Your task to perform on an android device: Go to Maps Image 0: 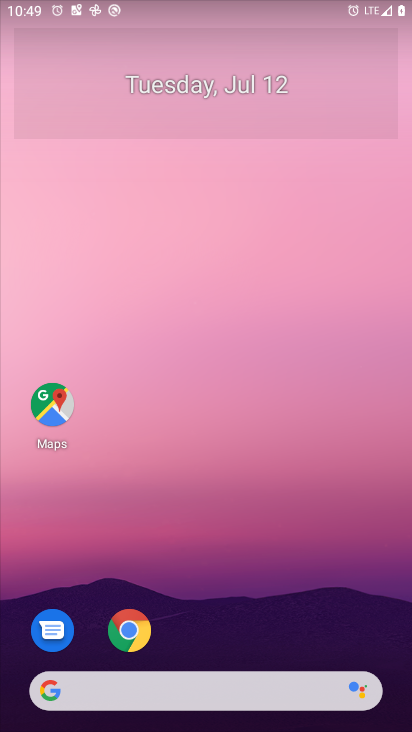
Step 0: press home button
Your task to perform on an android device: Go to Maps Image 1: 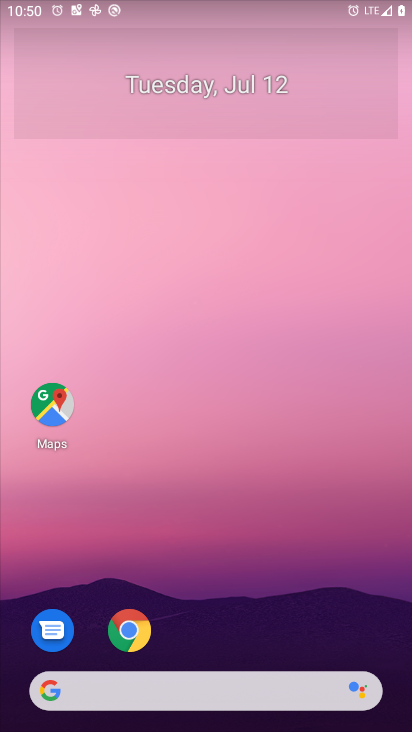
Step 1: click (41, 402)
Your task to perform on an android device: Go to Maps Image 2: 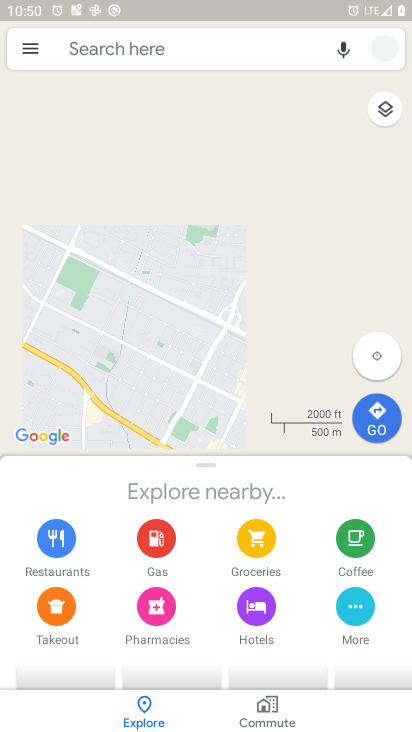
Step 2: task complete